Your task to perform on an android device: Open Amazon Image 0: 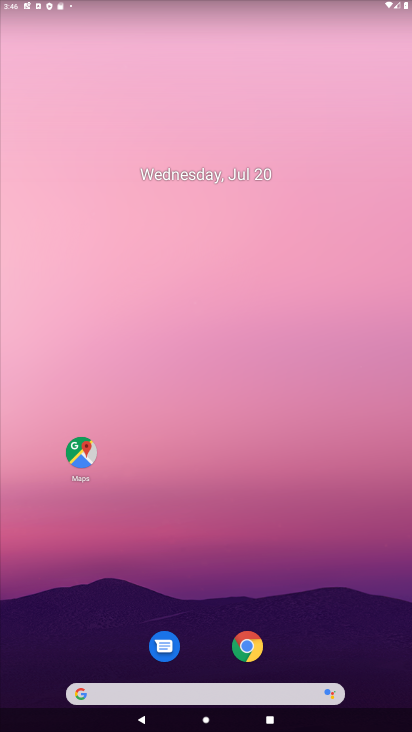
Step 0: click (251, 640)
Your task to perform on an android device: Open Amazon Image 1: 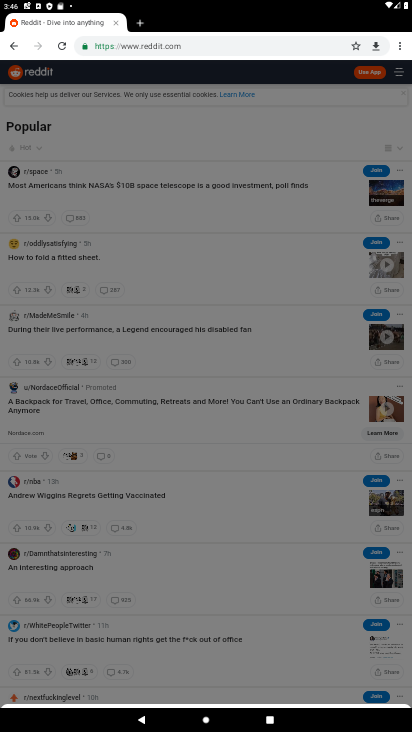
Step 1: click (142, 22)
Your task to perform on an android device: Open Amazon Image 2: 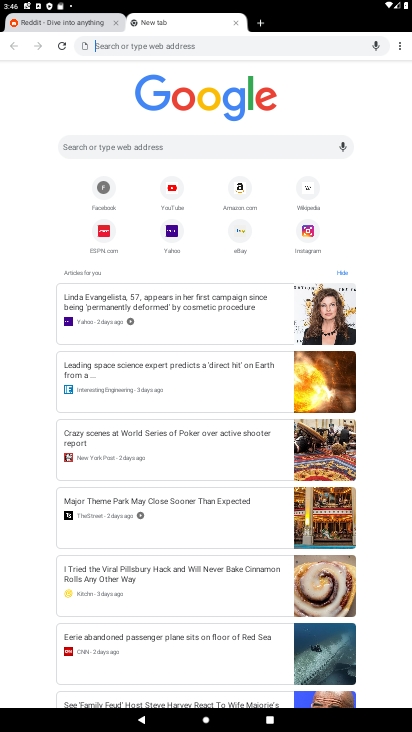
Step 2: click (250, 206)
Your task to perform on an android device: Open Amazon Image 3: 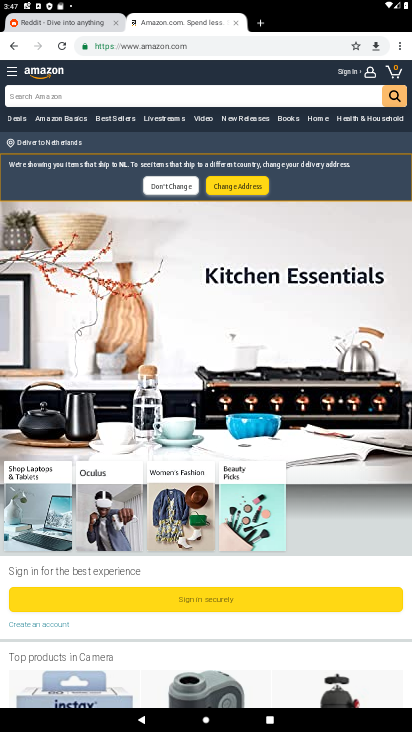
Step 3: task complete